Your task to perform on an android device: check storage Image 0: 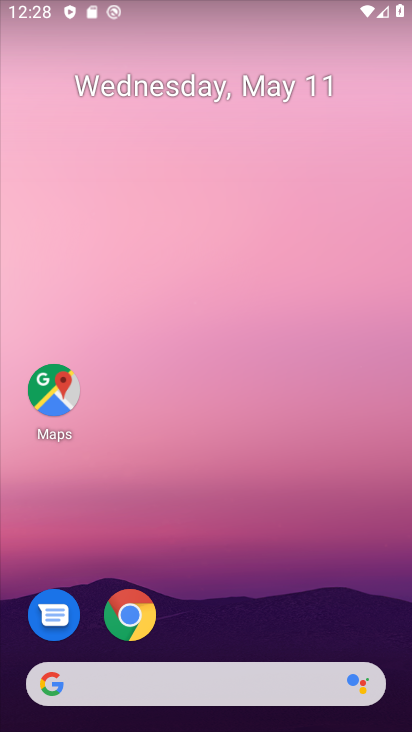
Step 0: drag from (223, 619) to (165, 326)
Your task to perform on an android device: check storage Image 1: 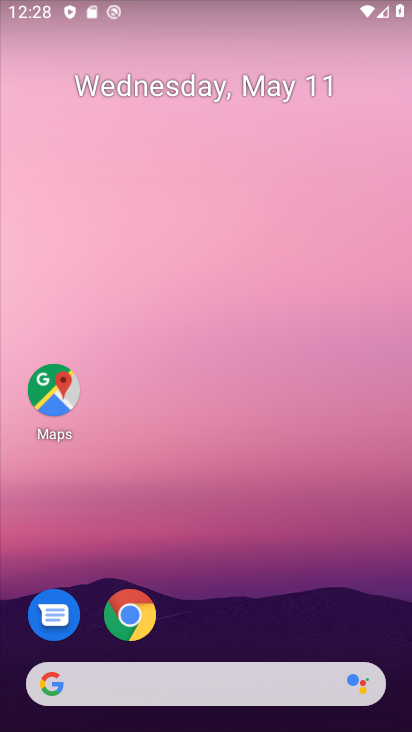
Step 1: drag from (198, 626) to (370, 5)
Your task to perform on an android device: check storage Image 2: 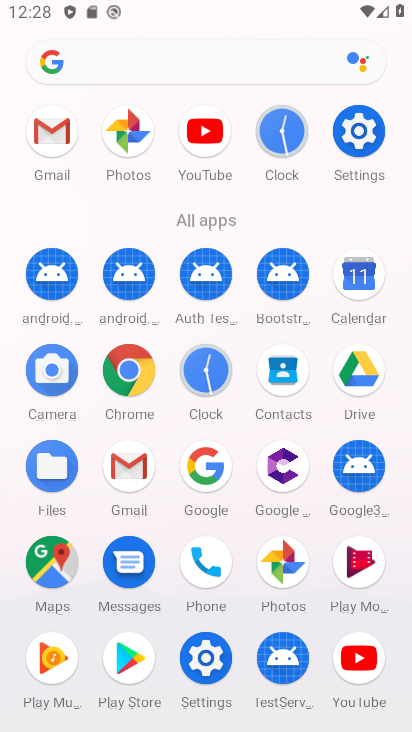
Step 2: click (343, 190)
Your task to perform on an android device: check storage Image 3: 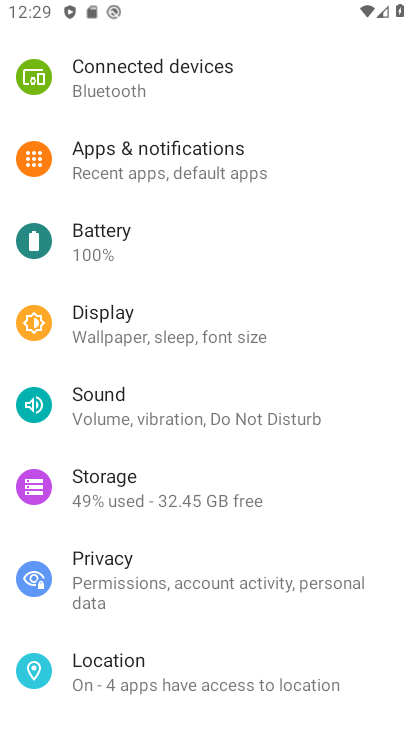
Step 3: click (188, 473)
Your task to perform on an android device: check storage Image 4: 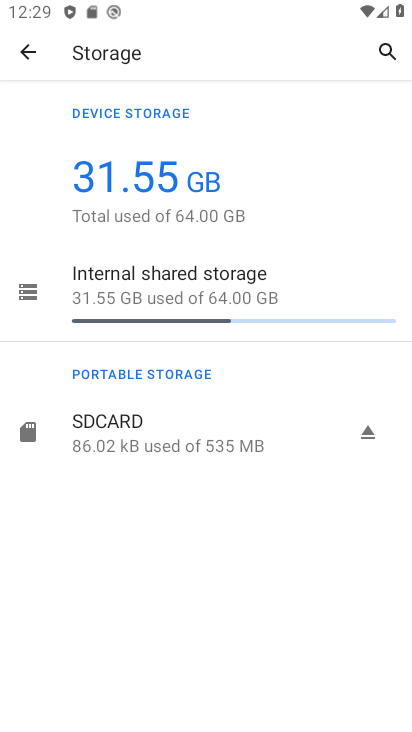
Step 4: task complete